Your task to perform on an android device: Do I have any events tomorrow? Image 0: 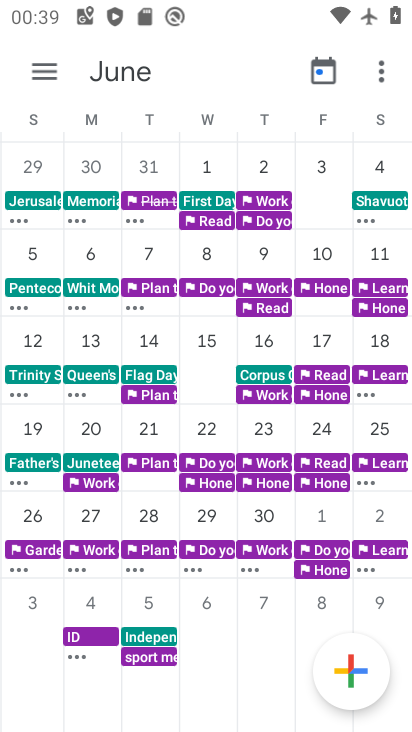
Step 0: click (33, 68)
Your task to perform on an android device: Do I have any events tomorrow? Image 1: 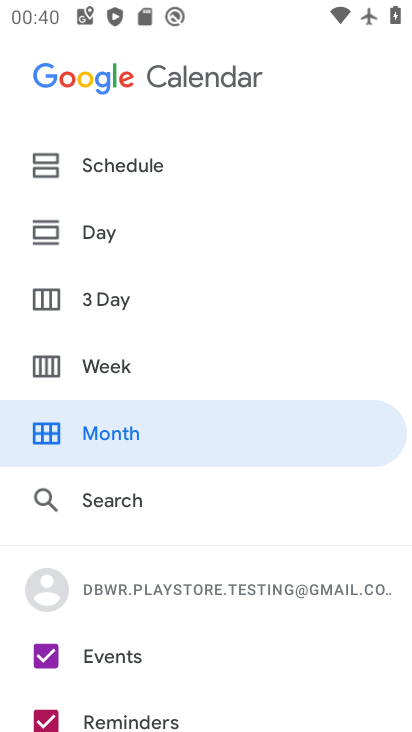
Step 1: click (253, 425)
Your task to perform on an android device: Do I have any events tomorrow? Image 2: 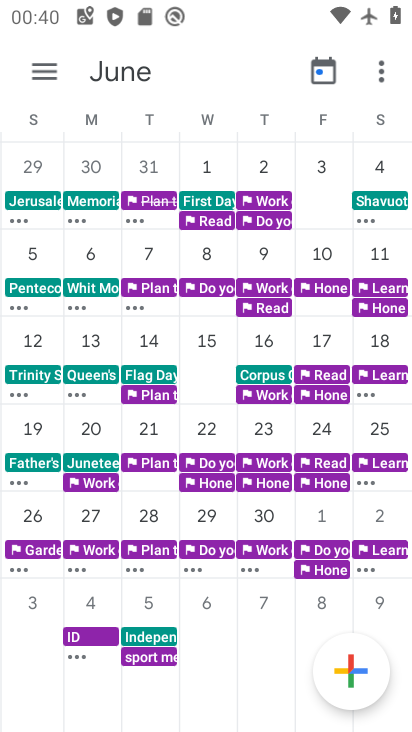
Step 2: task complete